Your task to perform on an android device: turn on priority inbox in the gmail app Image 0: 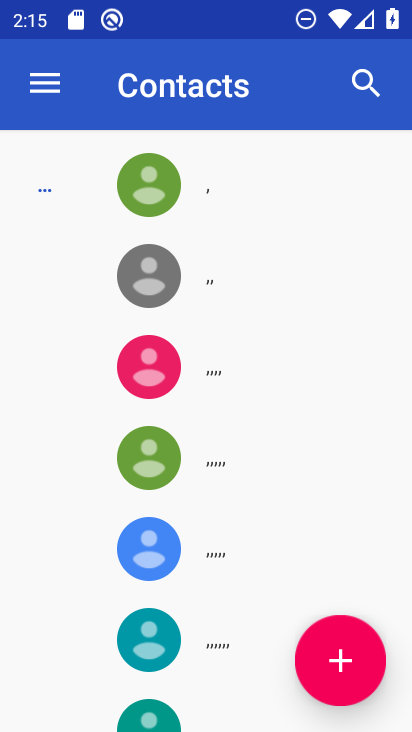
Step 0: press home button
Your task to perform on an android device: turn on priority inbox in the gmail app Image 1: 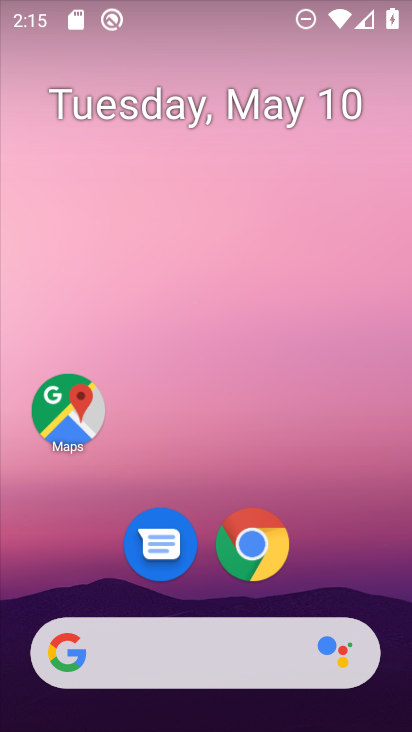
Step 1: drag from (216, 713) to (203, 190)
Your task to perform on an android device: turn on priority inbox in the gmail app Image 2: 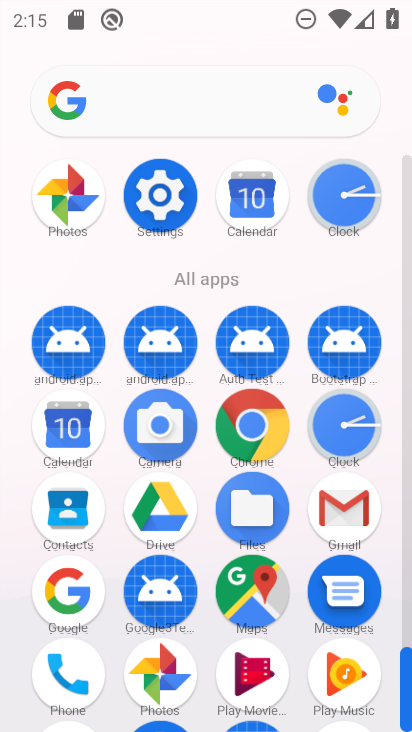
Step 2: click (349, 504)
Your task to perform on an android device: turn on priority inbox in the gmail app Image 3: 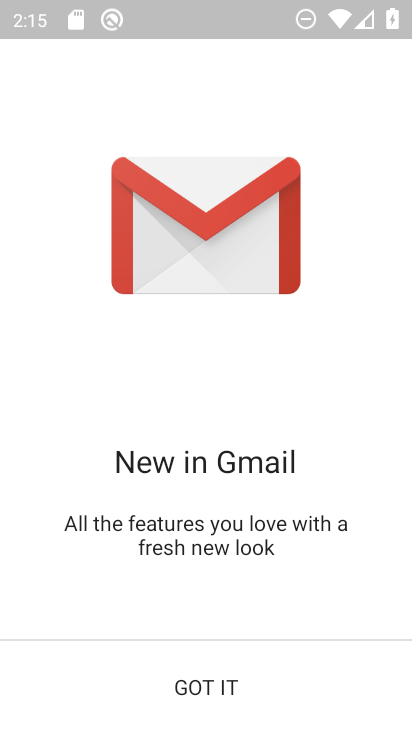
Step 3: click (189, 680)
Your task to perform on an android device: turn on priority inbox in the gmail app Image 4: 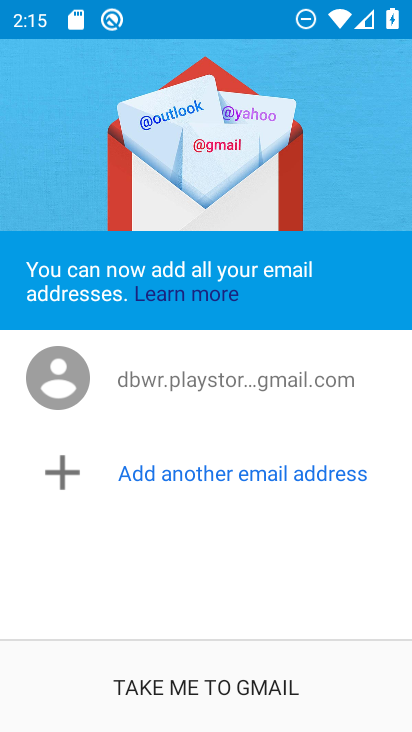
Step 4: click (194, 676)
Your task to perform on an android device: turn on priority inbox in the gmail app Image 5: 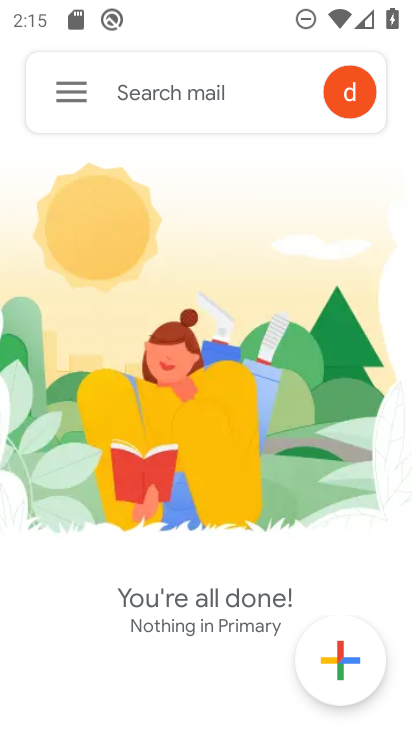
Step 5: click (72, 90)
Your task to perform on an android device: turn on priority inbox in the gmail app Image 6: 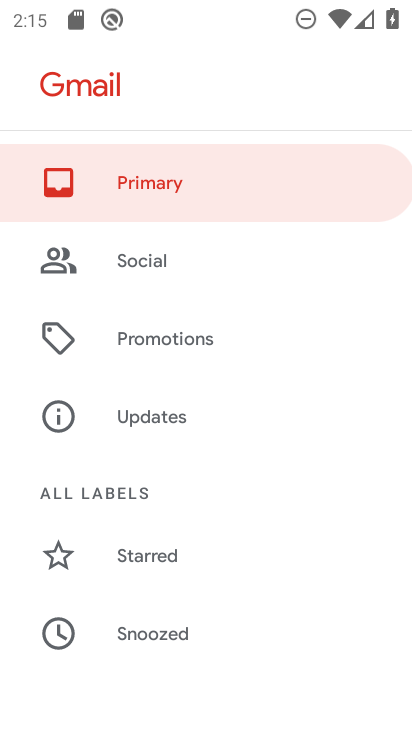
Step 6: drag from (174, 619) to (190, 273)
Your task to perform on an android device: turn on priority inbox in the gmail app Image 7: 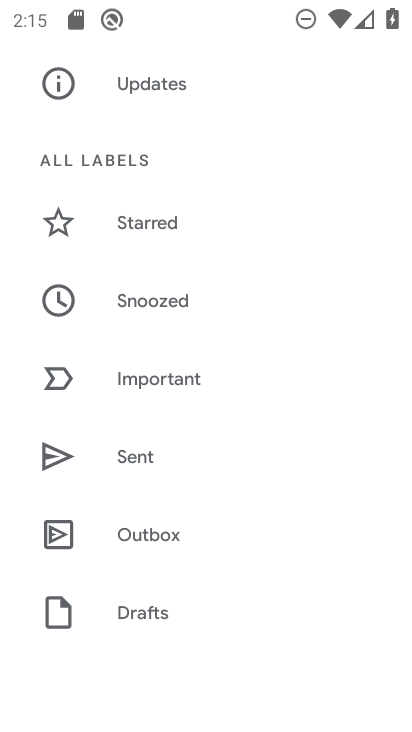
Step 7: drag from (185, 632) to (209, 298)
Your task to perform on an android device: turn on priority inbox in the gmail app Image 8: 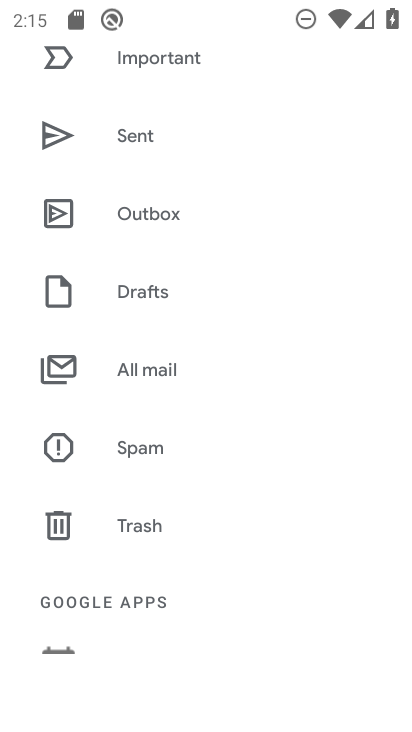
Step 8: drag from (136, 645) to (155, 304)
Your task to perform on an android device: turn on priority inbox in the gmail app Image 9: 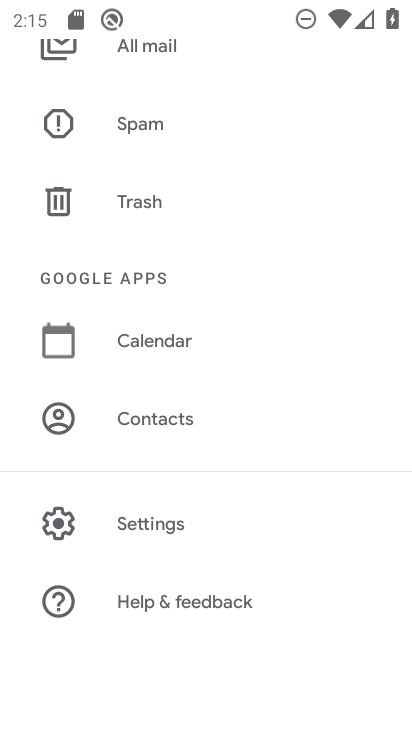
Step 9: click (154, 517)
Your task to perform on an android device: turn on priority inbox in the gmail app Image 10: 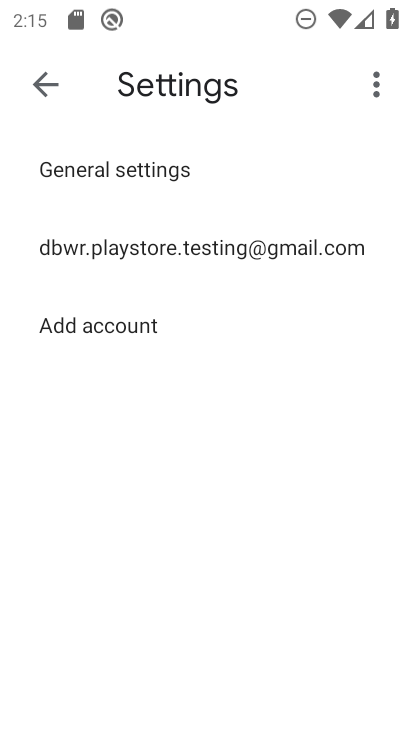
Step 10: click (216, 249)
Your task to perform on an android device: turn on priority inbox in the gmail app Image 11: 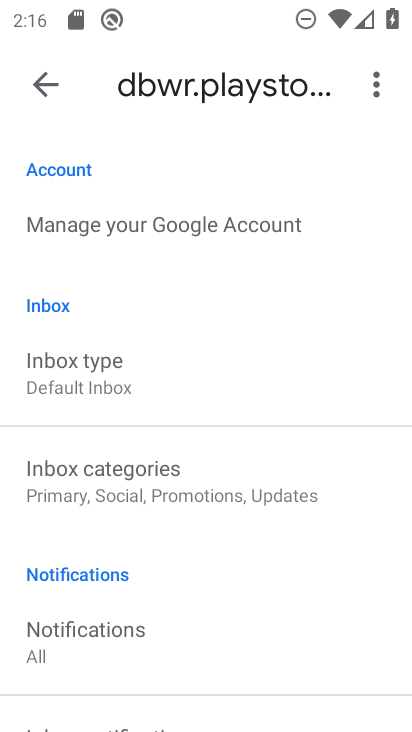
Step 11: click (92, 374)
Your task to perform on an android device: turn on priority inbox in the gmail app Image 12: 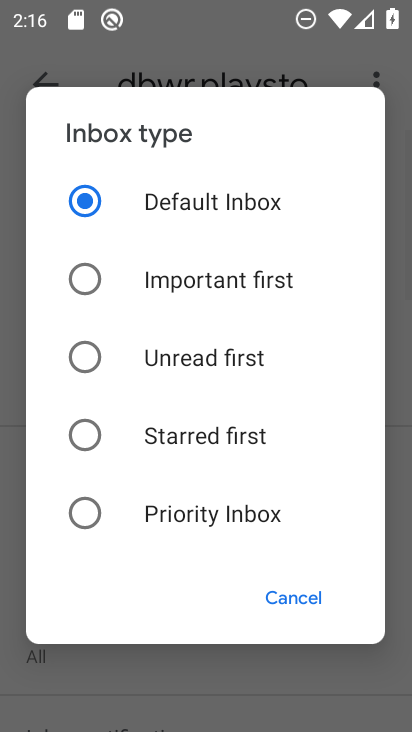
Step 12: click (83, 500)
Your task to perform on an android device: turn on priority inbox in the gmail app Image 13: 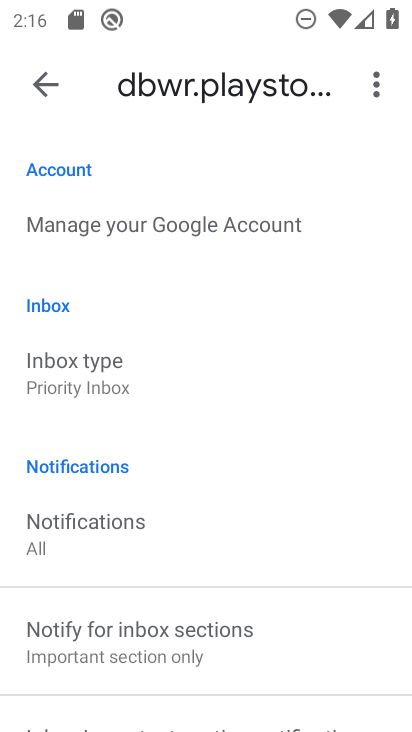
Step 13: task complete